Your task to perform on an android device: Clear all items from cart on ebay.com. Search for "lenovo thinkpad" on ebay.com, select the first entry, add it to the cart, then select checkout. Image 0: 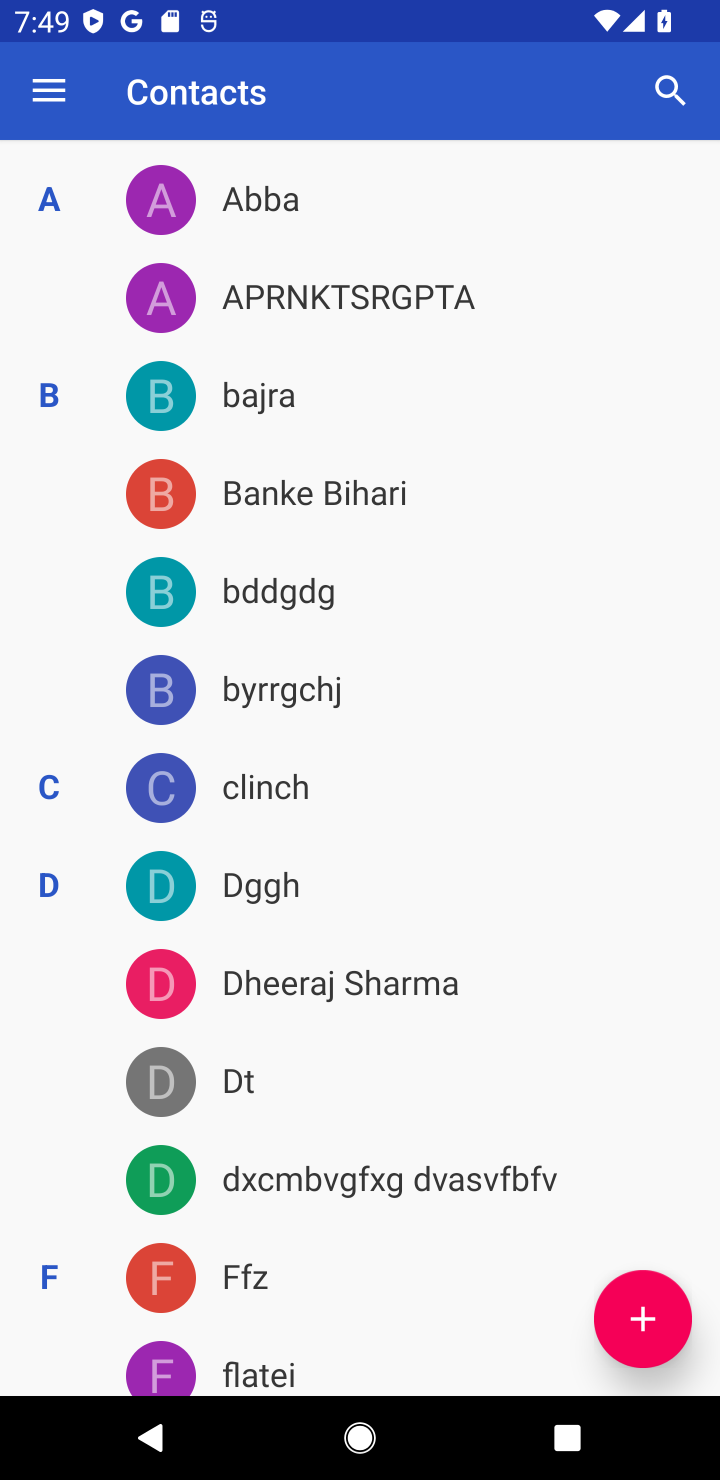
Step 0: press home button
Your task to perform on an android device: Clear all items from cart on ebay.com. Search for "lenovo thinkpad" on ebay.com, select the first entry, add it to the cart, then select checkout. Image 1: 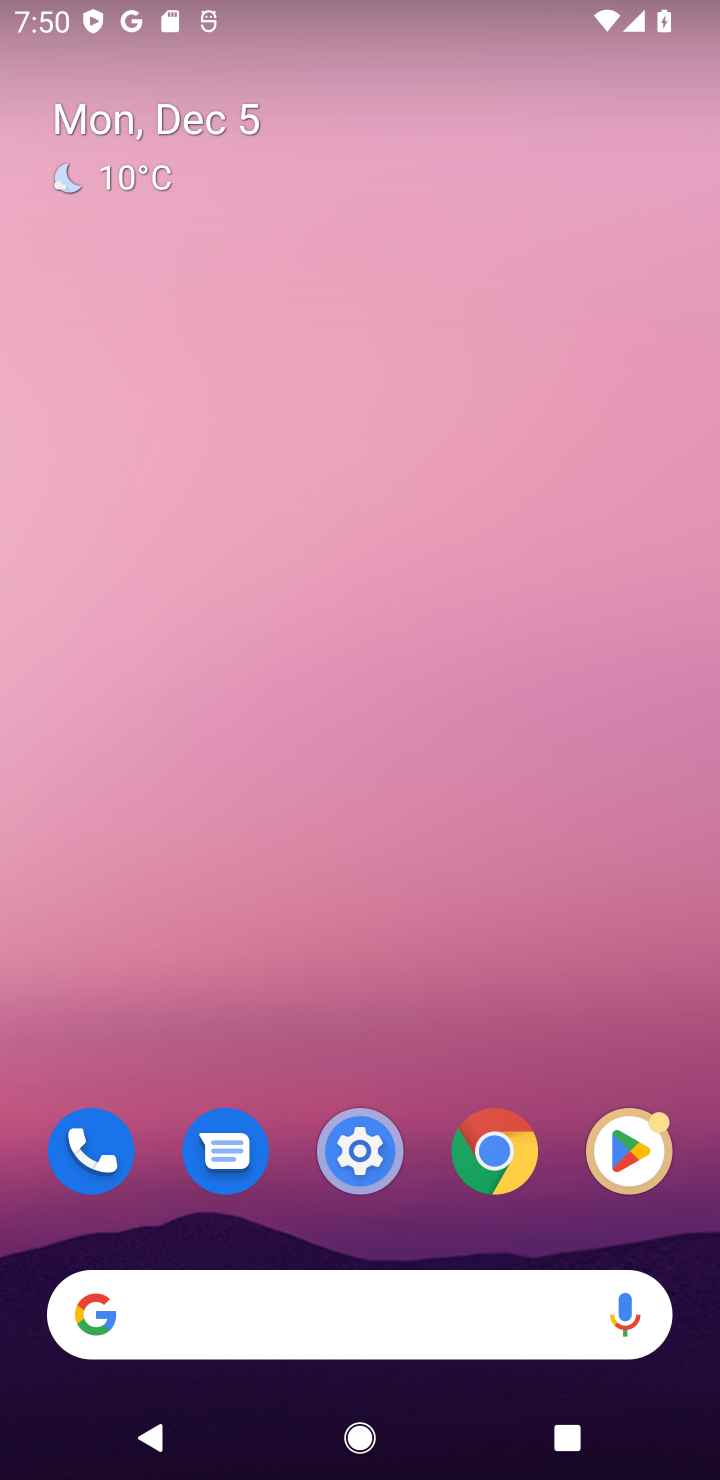
Step 1: click (536, 1309)
Your task to perform on an android device: Clear all items from cart on ebay.com. Search for "lenovo thinkpad" on ebay.com, select the first entry, add it to the cart, then select checkout. Image 2: 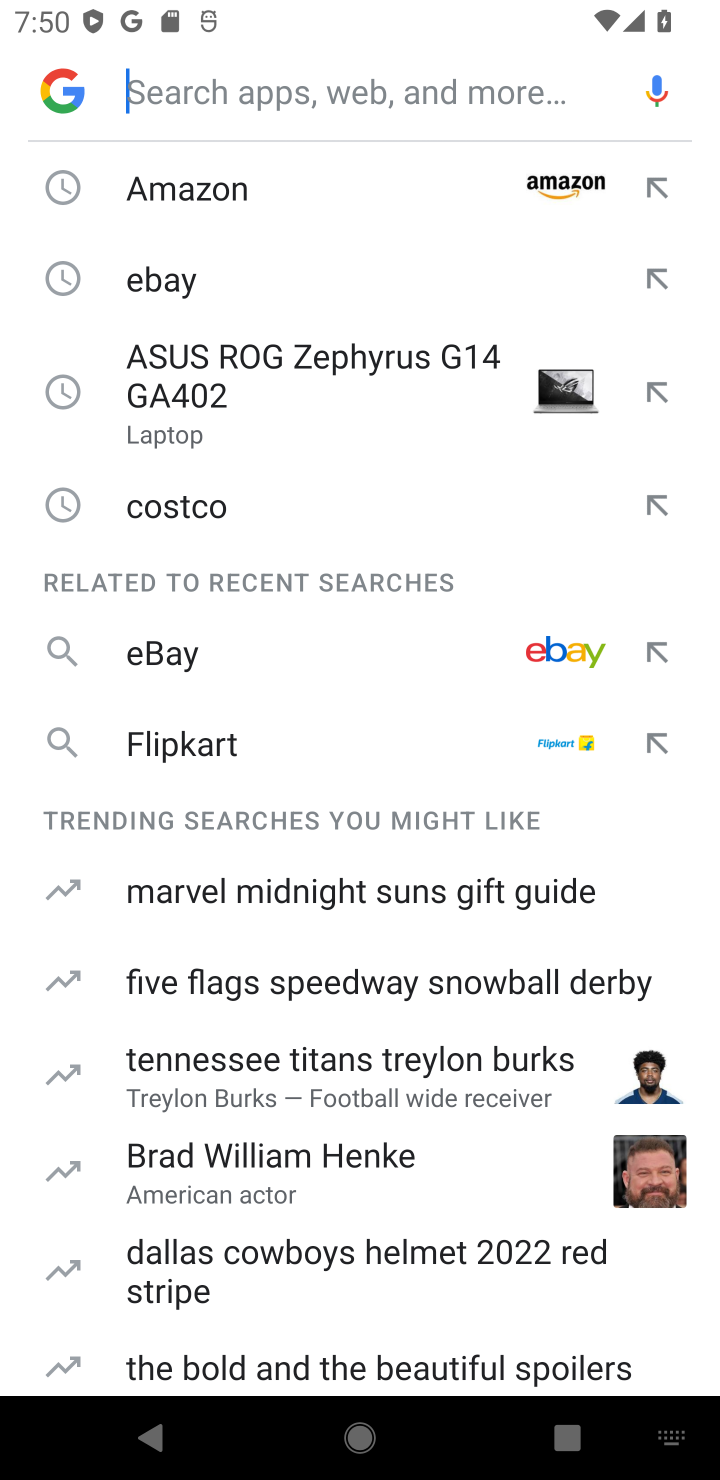
Step 2: click (515, 664)
Your task to perform on an android device: Clear all items from cart on ebay.com. Search for "lenovo thinkpad" on ebay.com, select the first entry, add it to the cart, then select checkout. Image 3: 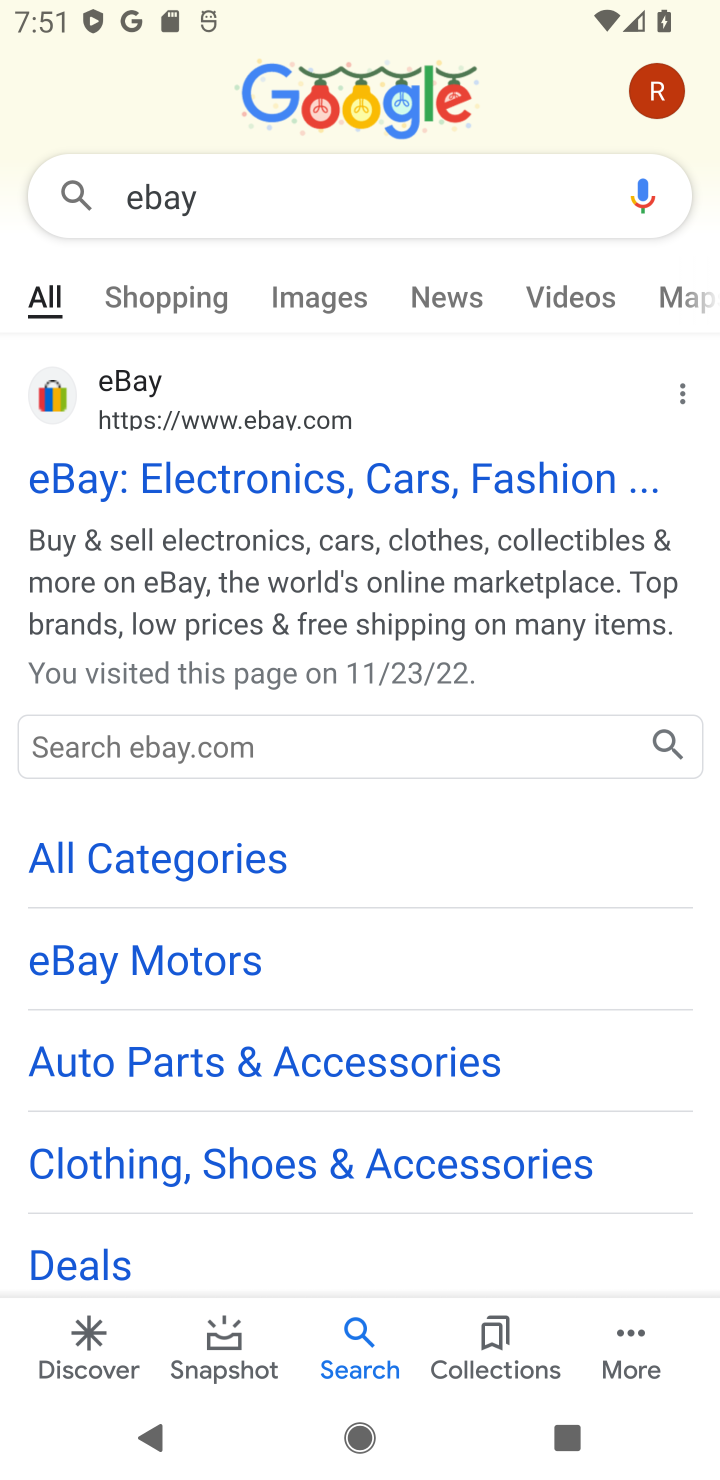
Step 3: click (344, 504)
Your task to perform on an android device: Clear all items from cart on ebay.com. Search for "lenovo thinkpad" on ebay.com, select the first entry, add it to the cart, then select checkout. Image 4: 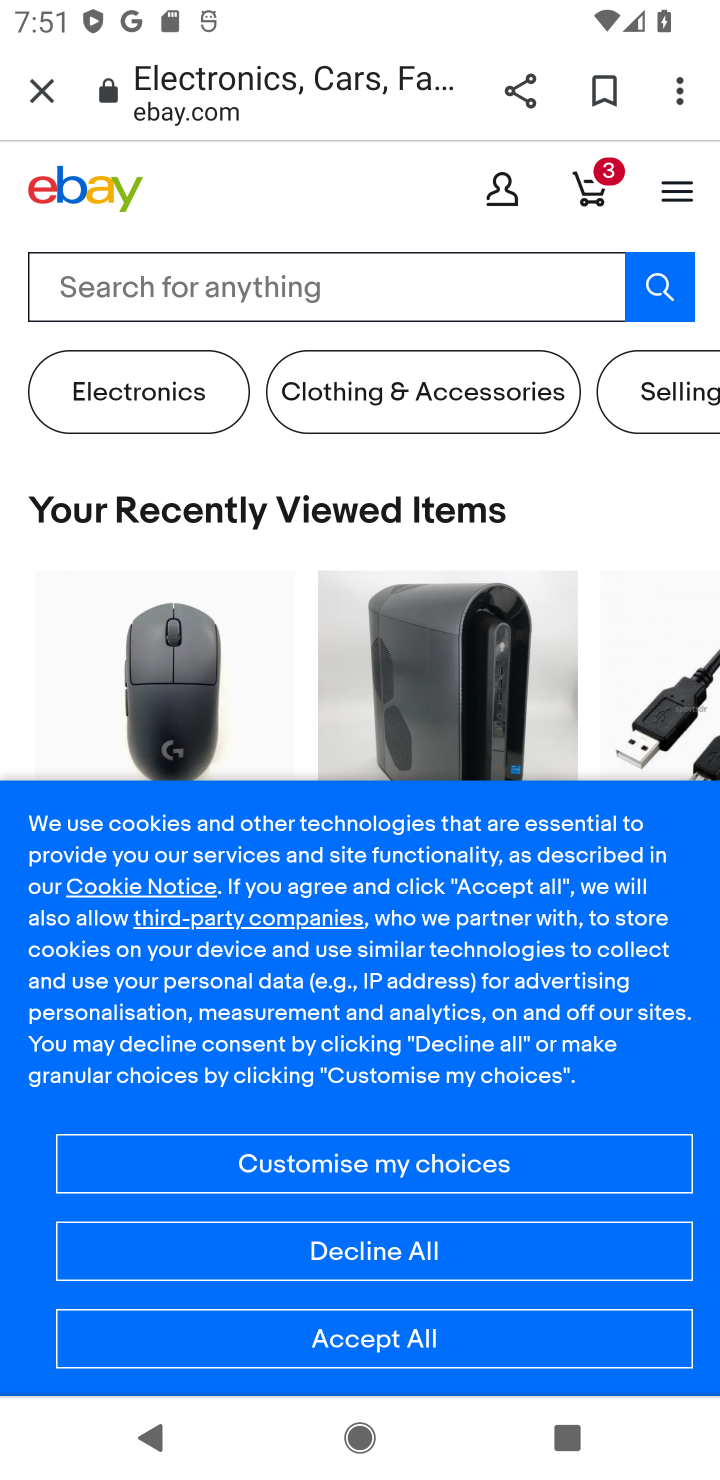
Step 4: click (356, 1359)
Your task to perform on an android device: Clear all items from cart on ebay.com. Search for "lenovo thinkpad" on ebay.com, select the first entry, add it to the cart, then select checkout. Image 5: 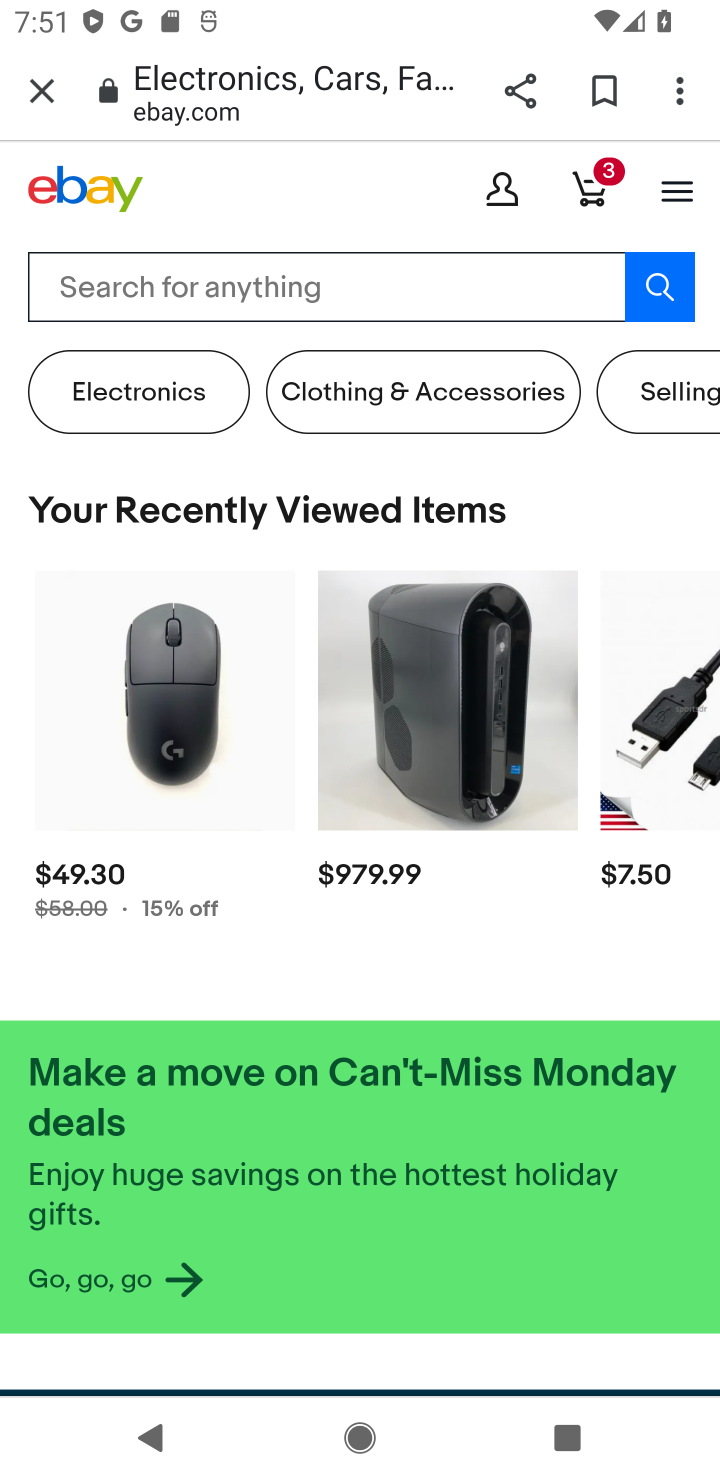
Step 5: task complete